Your task to perform on an android device: Go to CNN.com Image 0: 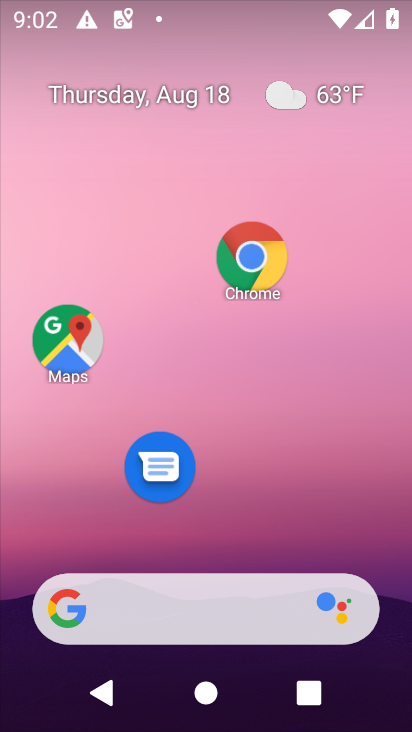
Step 0: click (235, 604)
Your task to perform on an android device: Go to CNN.com Image 1: 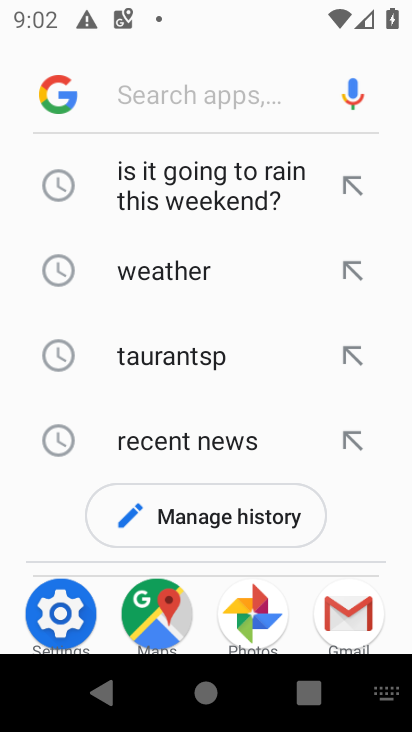
Step 1: type "CNN.com"
Your task to perform on an android device: Go to CNN.com Image 2: 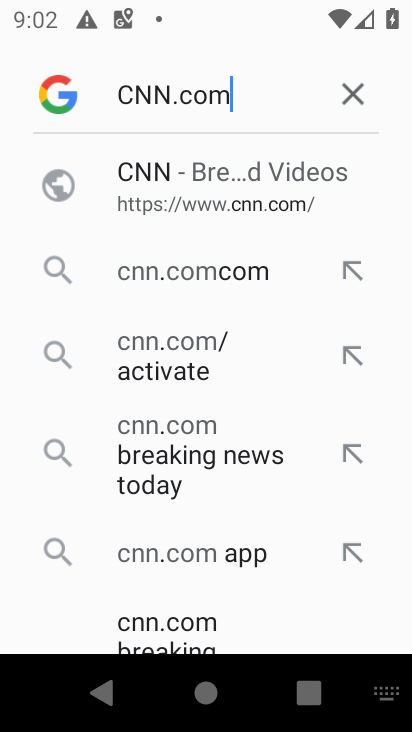
Step 2: press enter
Your task to perform on an android device: Go to CNN.com Image 3: 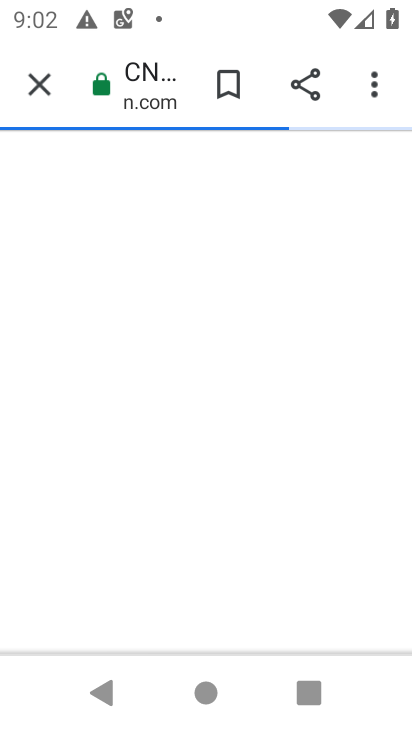
Step 3: task complete